Your task to perform on an android device: Show me the alarms in the clock app Image 0: 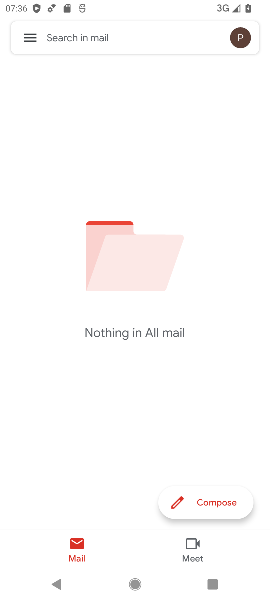
Step 0: press home button
Your task to perform on an android device: Show me the alarms in the clock app Image 1: 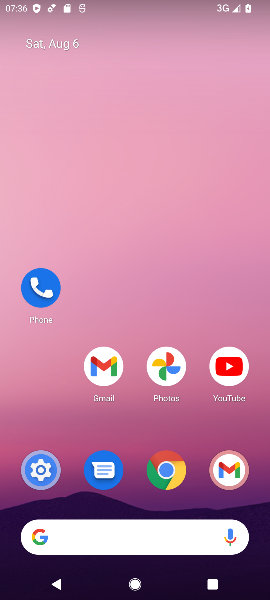
Step 1: drag from (178, 568) to (162, 143)
Your task to perform on an android device: Show me the alarms in the clock app Image 2: 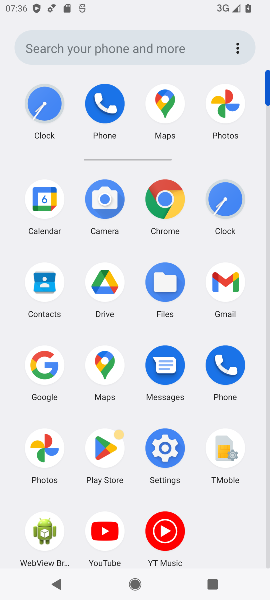
Step 2: click (239, 207)
Your task to perform on an android device: Show me the alarms in the clock app Image 3: 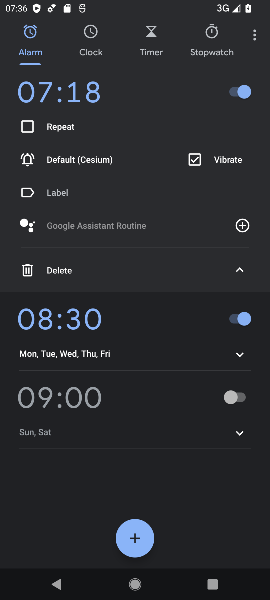
Step 3: click (131, 550)
Your task to perform on an android device: Show me the alarms in the clock app Image 4: 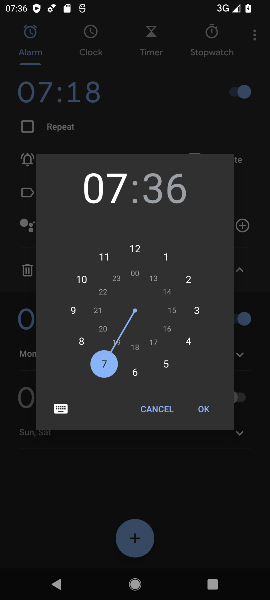
Step 4: click (207, 405)
Your task to perform on an android device: Show me the alarms in the clock app Image 5: 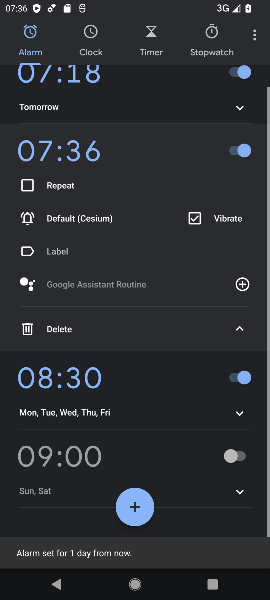
Step 5: task complete